Your task to perform on an android device: Open display settings Image 0: 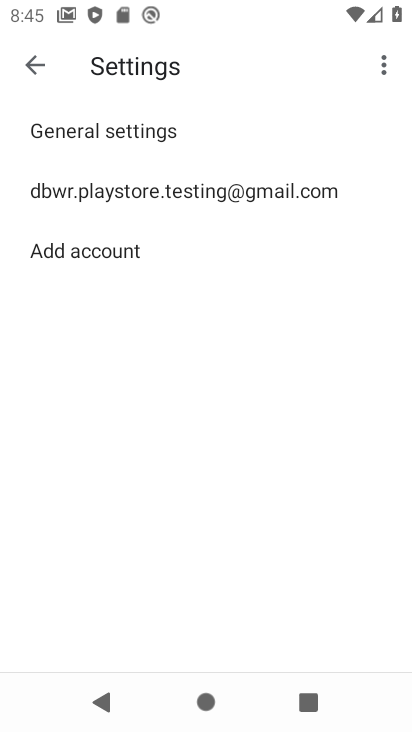
Step 0: press home button
Your task to perform on an android device: Open display settings Image 1: 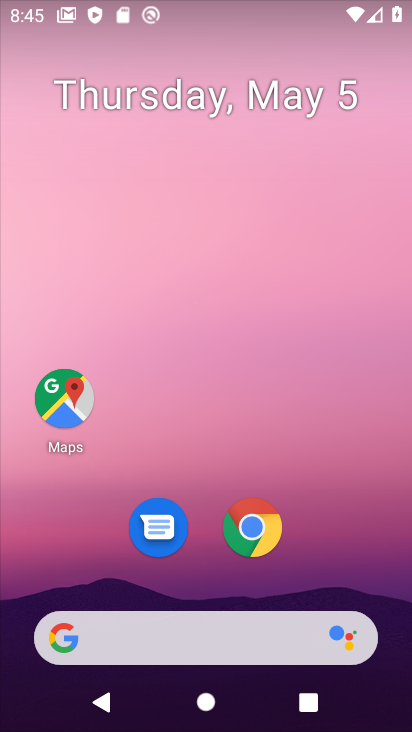
Step 1: drag from (340, 519) to (291, 4)
Your task to perform on an android device: Open display settings Image 2: 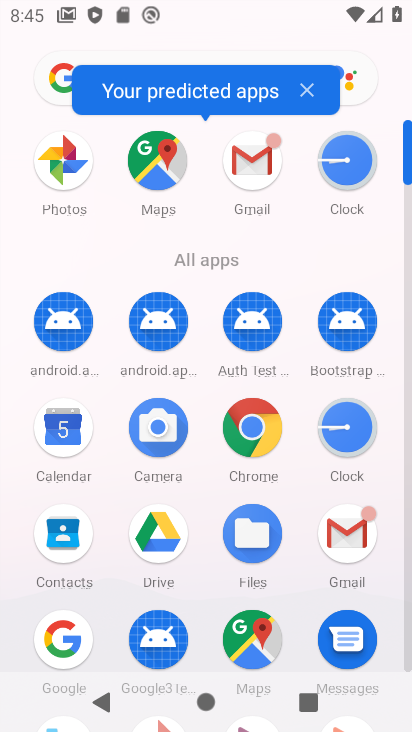
Step 2: click (409, 603)
Your task to perform on an android device: Open display settings Image 3: 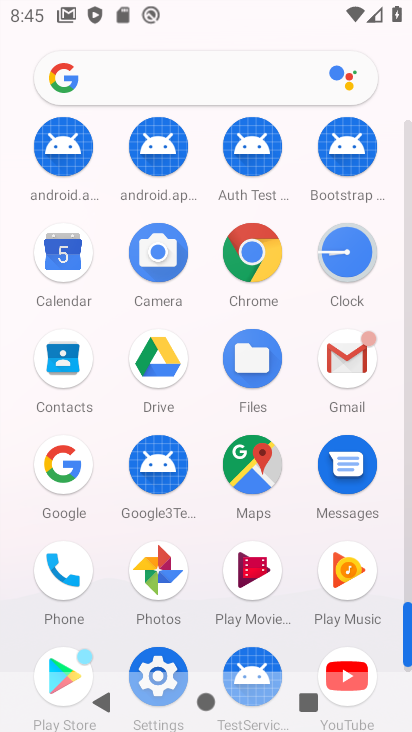
Step 3: click (158, 664)
Your task to perform on an android device: Open display settings Image 4: 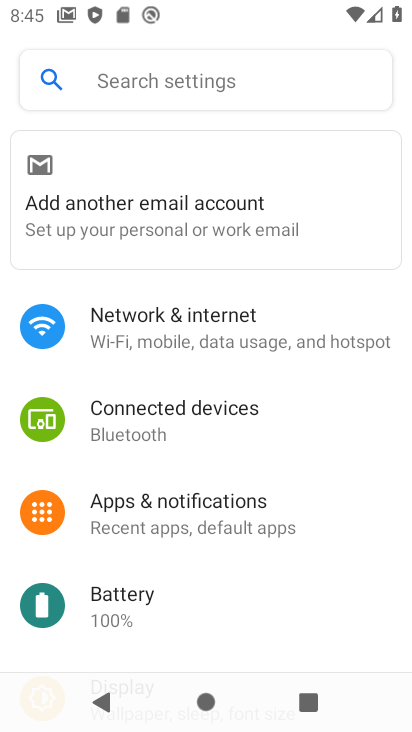
Step 4: drag from (143, 609) to (125, 208)
Your task to perform on an android device: Open display settings Image 5: 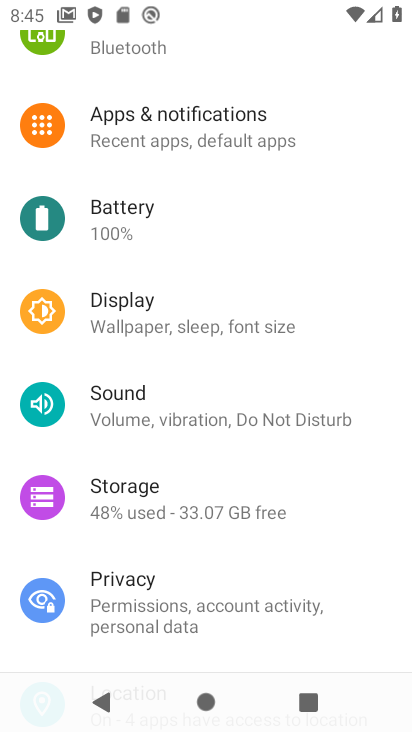
Step 5: click (159, 325)
Your task to perform on an android device: Open display settings Image 6: 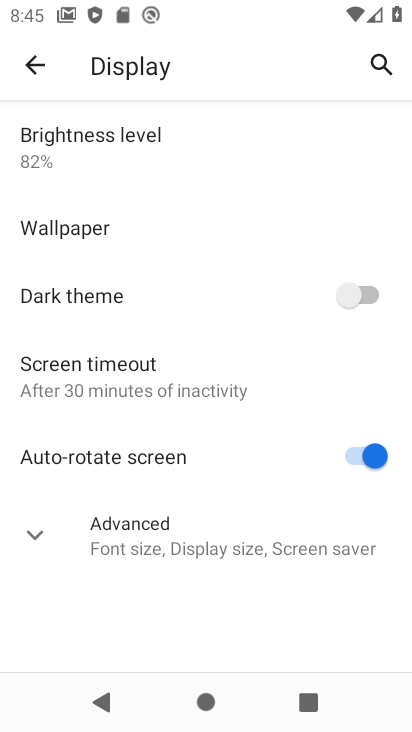
Step 6: task complete